Your task to perform on an android device: open app "Adobe Express: Graphic Design" (install if not already installed), go to login, and select forgot password Image 0: 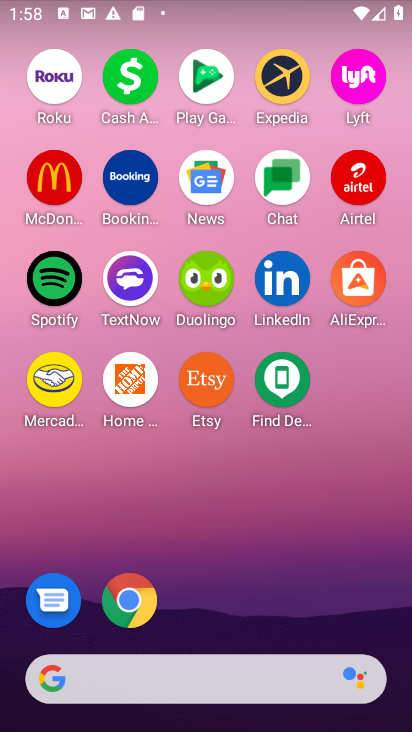
Step 0: drag from (245, 639) to (267, 11)
Your task to perform on an android device: open app "Adobe Express: Graphic Design" (install if not already installed), go to login, and select forgot password Image 1: 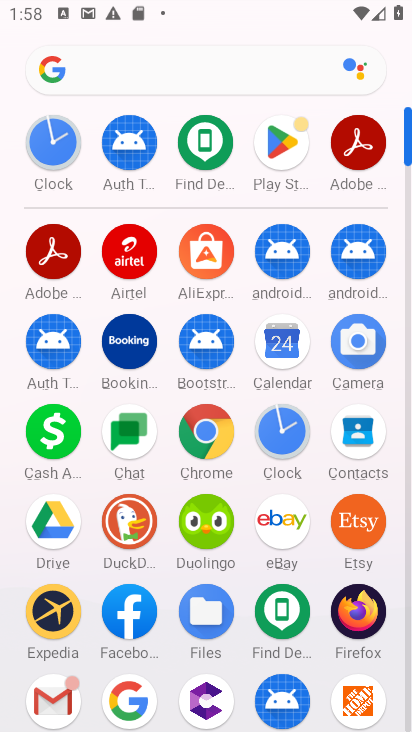
Step 1: click (360, 158)
Your task to perform on an android device: open app "Adobe Express: Graphic Design" (install if not already installed), go to login, and select forgot password Image 2: 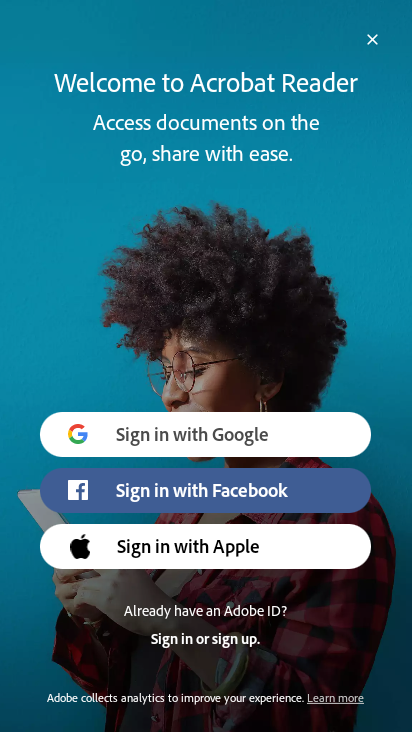
Step 2: press home button
Your task to perform on an android device: open app "Adobe Express: Graphic Design" (install if not already installed), go to login, and select forgot password Image 3: 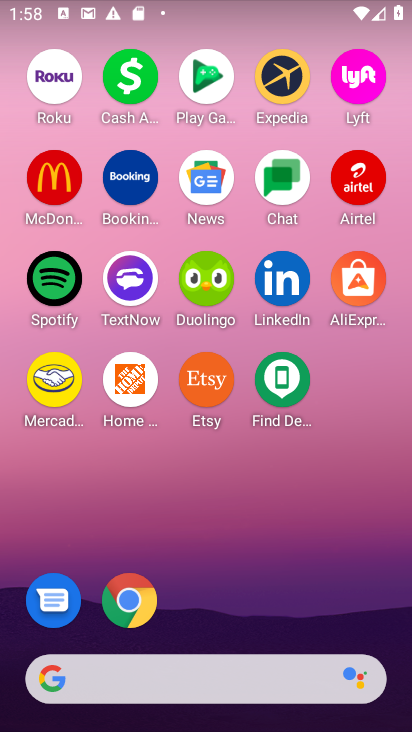
Step 3: drag from (243, 636) to (259, 62)
Your task to perform on an android device: open app "Adobe Express: Graphic Design" (install if not already installed), go to login, and select forgot password Image 4: 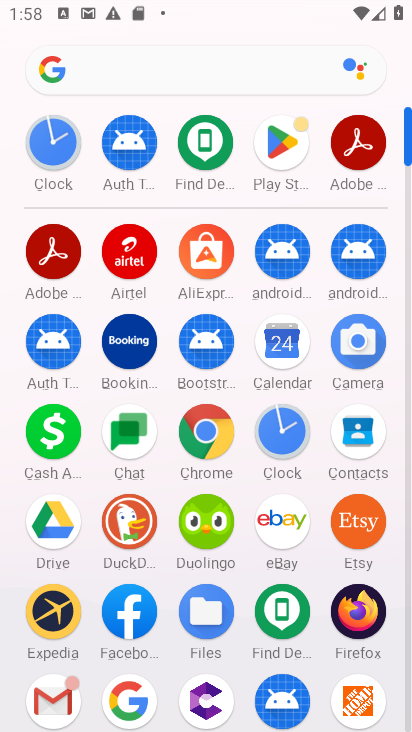
Step 4: click (267, 135)
Your task to perform on an android device: open app "Adobe Express: Graphic Design" (install if not already installed), go to login, and select forgot password Image 5: 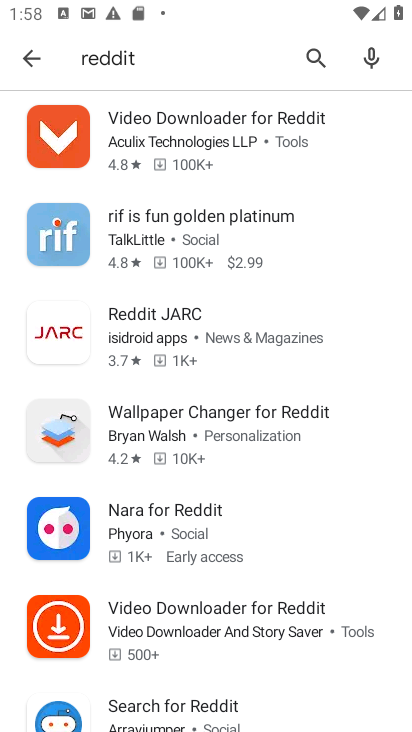
Step 5: press home button
Your task to perform on an android device: open app "Adobe Express: Graphic Design" (install if not already installed), go to login, and select forgot password Image 6: 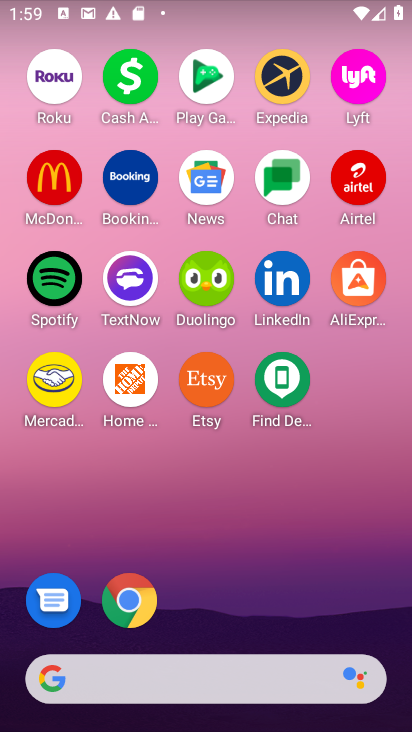
Step 6: drag from (230, 598) to (237, 188)
Your task to perform on an android device: open app "Adobe Express: Graphic Design" (install if not already installed), go to login, and select forgot password Image 7: 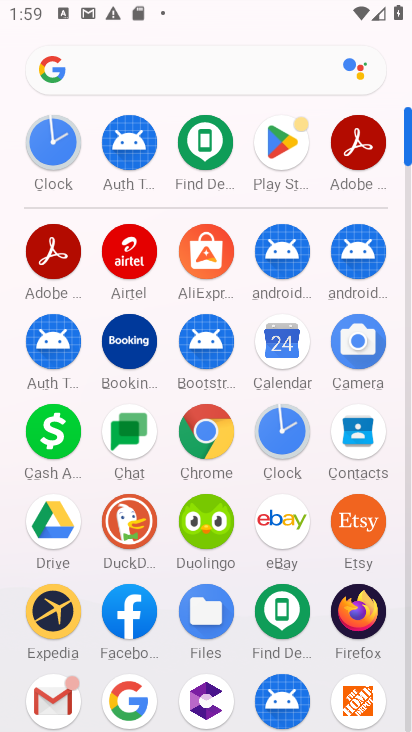
Step 7: click (355, 170)
Your task to perform on an android device: open app "Adobe Express: Graphic Design" (install if not already installed), go to login, and select forgot password Image 8: 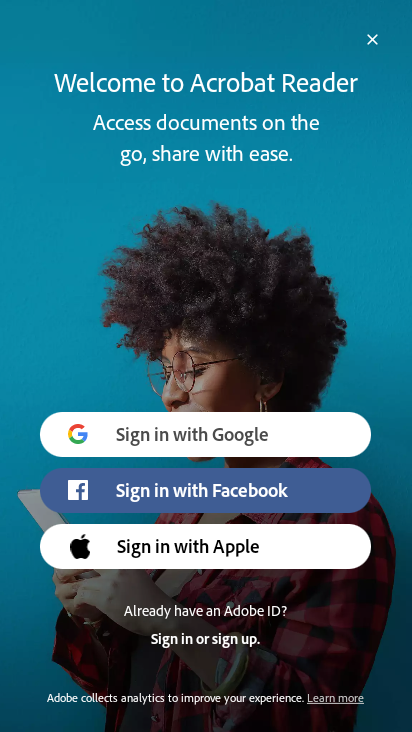
Step 8: task complete